Your task to perform on an android device: Open maps Image 0: 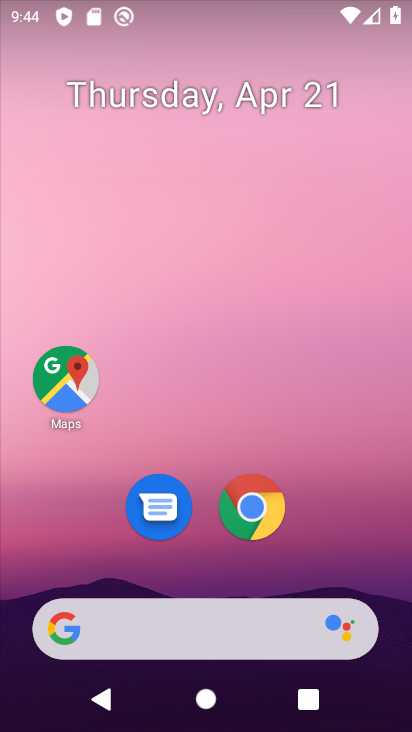
Step 0: click (66, 368)
Your task to perform on an android device: Open maps Image 1: 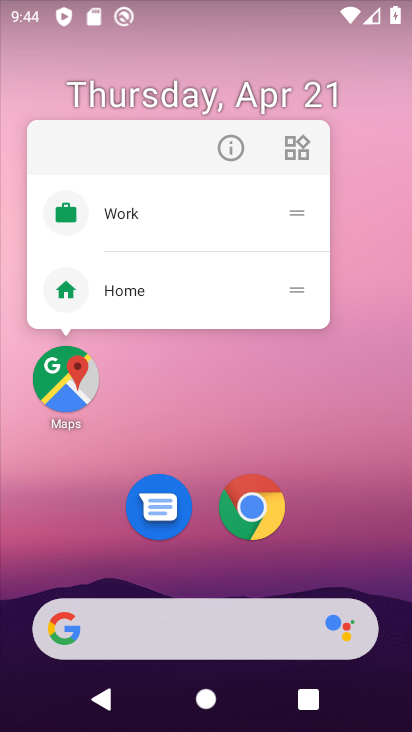
Step 1: click (67, 378)
Your task to perform on an android device: Open maps Image 2: 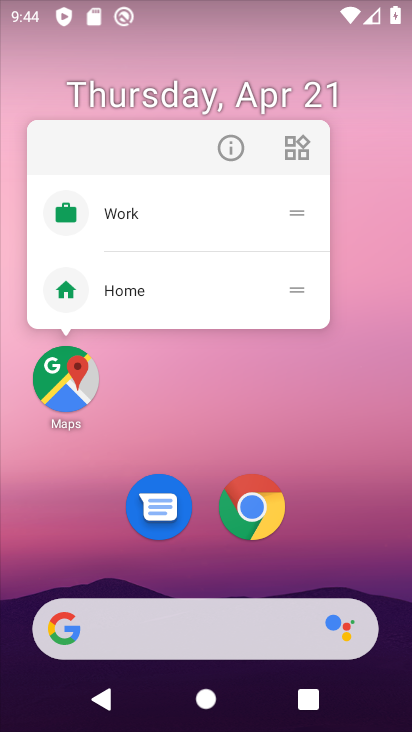
Step 2: click (76, 390)
Your task to perform on an android device: Open maps Image 3: 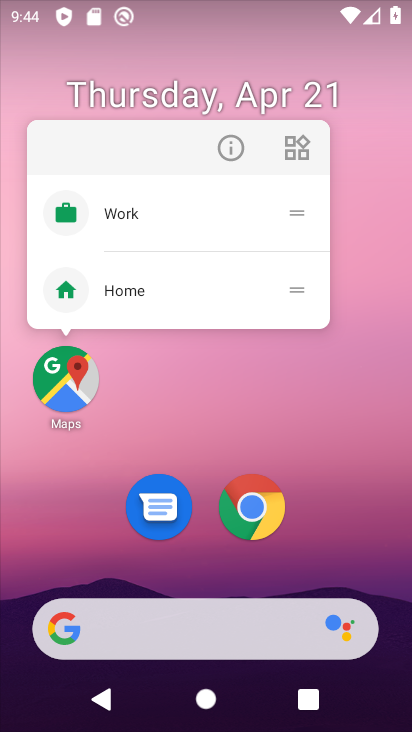
Step 3: click (65, 380)
Your task to perform on an android device: Open maps Image 4: 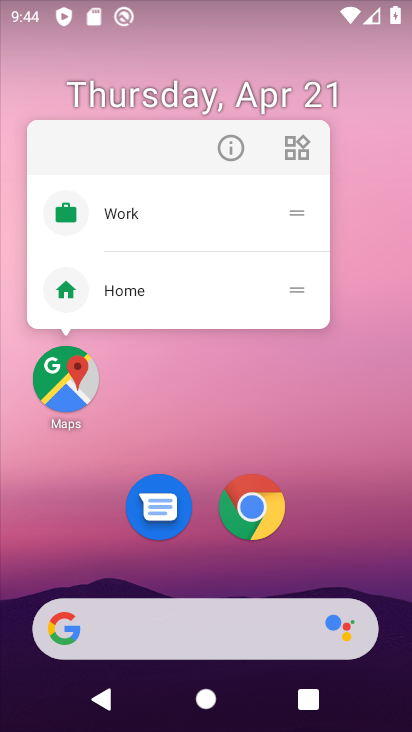
Step 4: click (68, 380)
Your task to perform on an android device: Open maps Image 5: 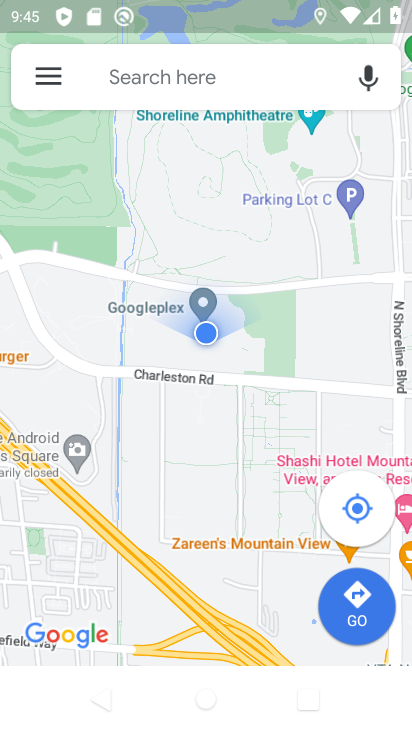
Step 5: task complete